Your task to perform on an android device: Open Youtube and go to "Your channel" Image 0: 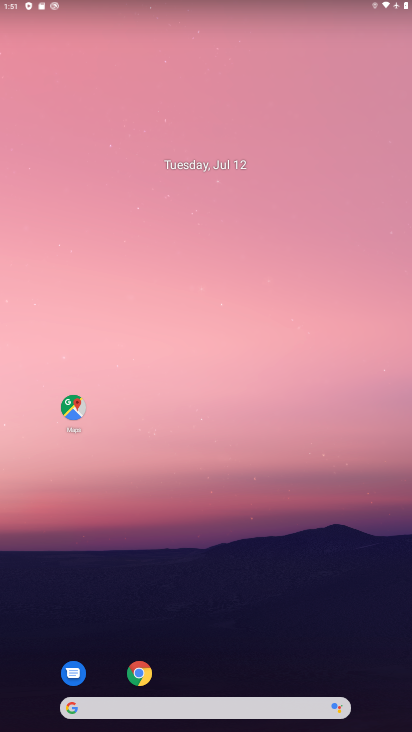
Step 0: drag from (250, 593) to (244, 150)
Your task to perform on an android device: Open Youtube and go to "Your channel" Image 1: 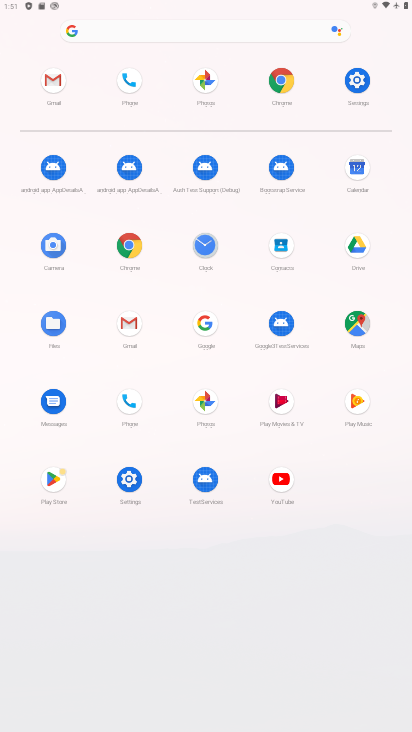
Step 1: click (287, 477)
Your task to perform on an android device: Open Youtube and go to "Your channel" Image 2: 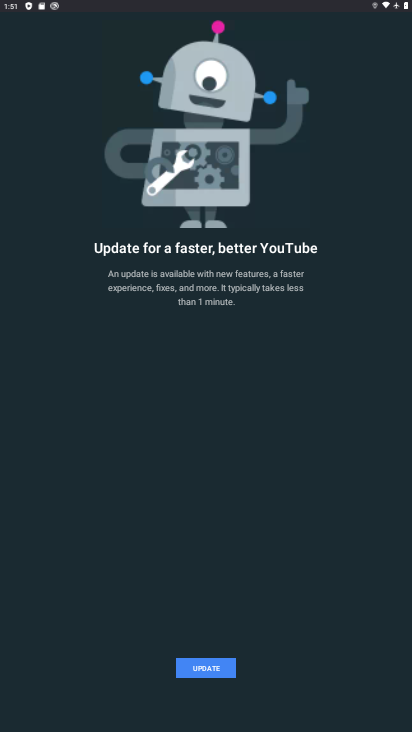
Step 2: task complete